Your task to perform on an android device: check the backup settings in the google photos Image 0: 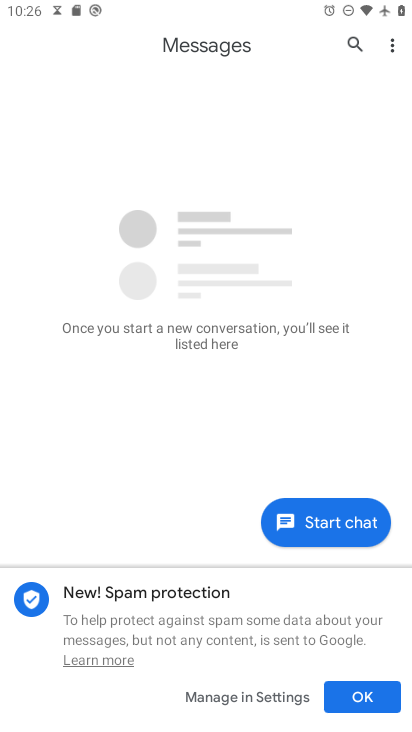
Step 0: press home button
Your task to perform on an android device: check the backup settings in the google photos Image 1: 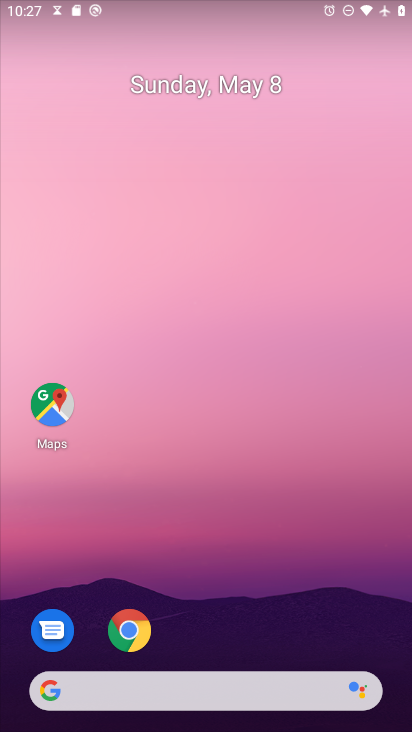
Step 1: drag from (205, 709) to (375, 282)
Your task to perform on an android device: check the backup settings in the google photos Image 2: 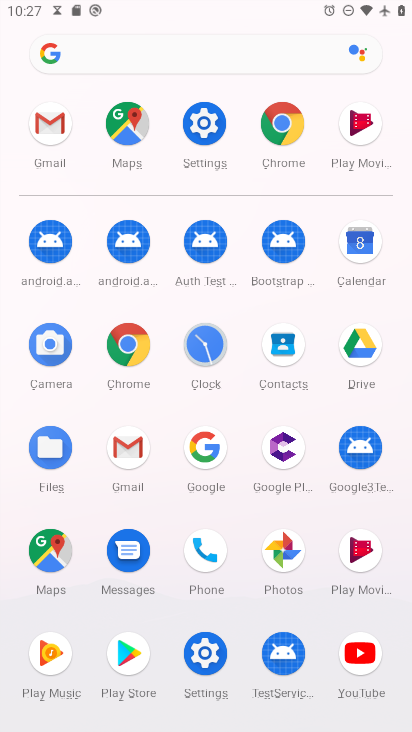
Step 2: click (292, 556)
Your task to perform on an android device: check the backup settings in the google photos Image 3: 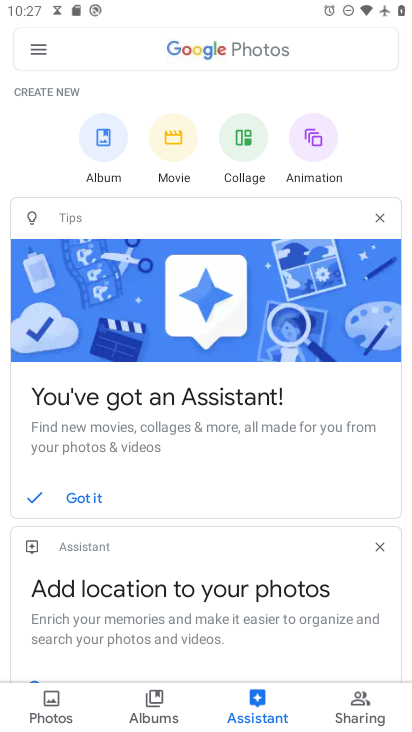
Step 3: click (33, 49)
Your task to perform on an android device: check the backup settings in the google photos Image 4: 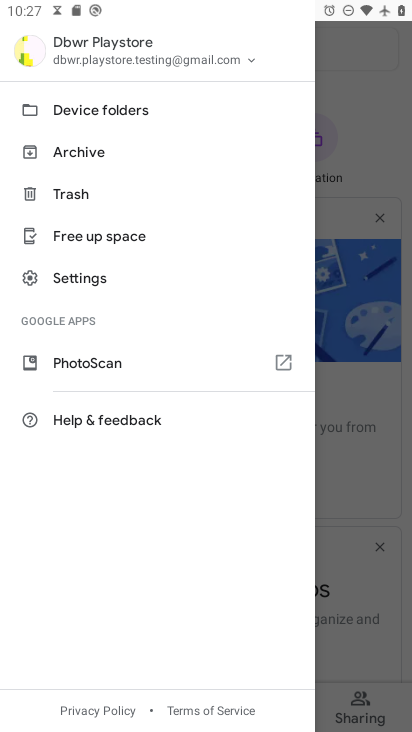
Step 4: click (100, 277)
Your task to perform on an android device: check the backup settings in the google photos Image 5: 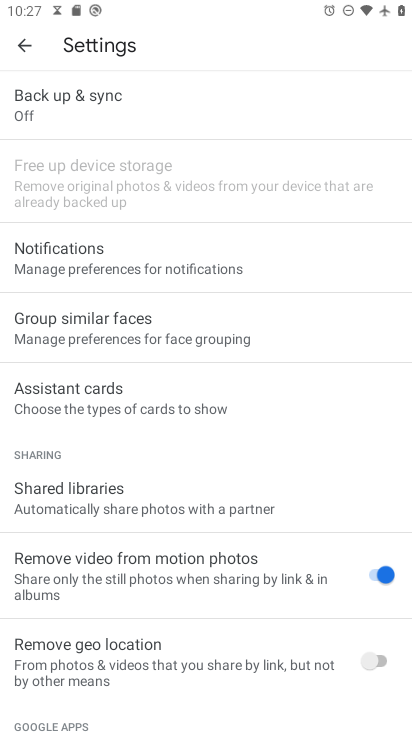
Step 5: click (92, 110)
Your task to perform on an android device: check the backup settings in the google photos Image 6: 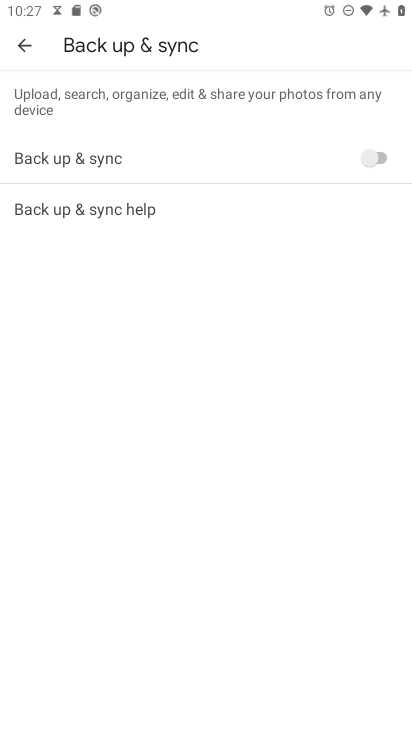
Step 6: click (384, 157)
Your task to perform on an android device: check the backup settings in the google photos Image 7: 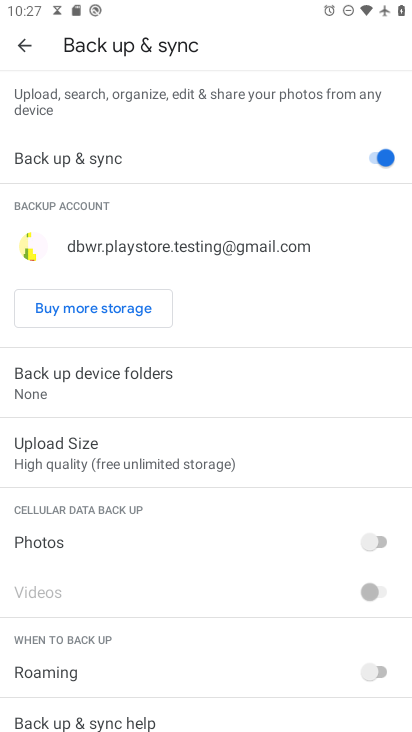
Step 7: task complete